Your task to perform on an android device: Search for flights from Seoul to Barcelona Image 0: 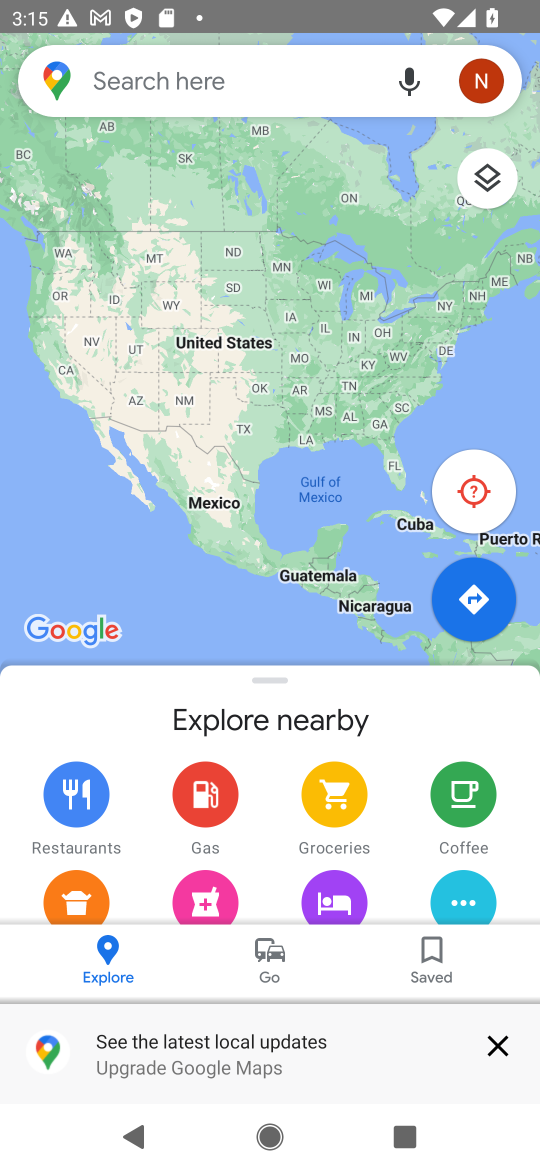
Step 0: press home button
Your task to perform on an android device: Search for flights from Seoul to Barcelona Image 1: 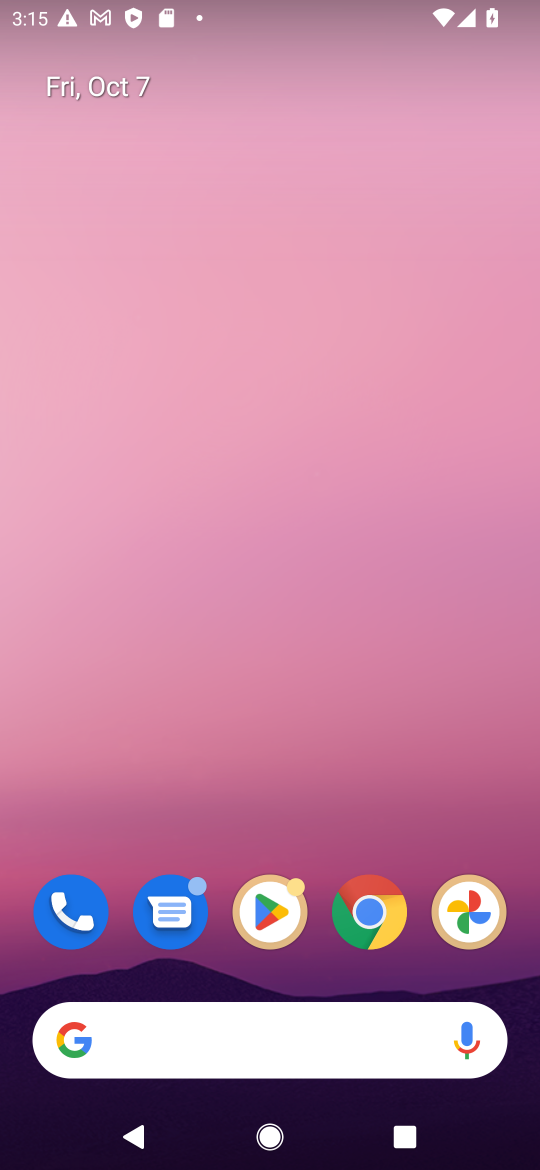
Step 1: drag from (265, 956) to (334, 144)
Your task to perform on an android device: Search for flights from Seoul to Barcelona Image 2: 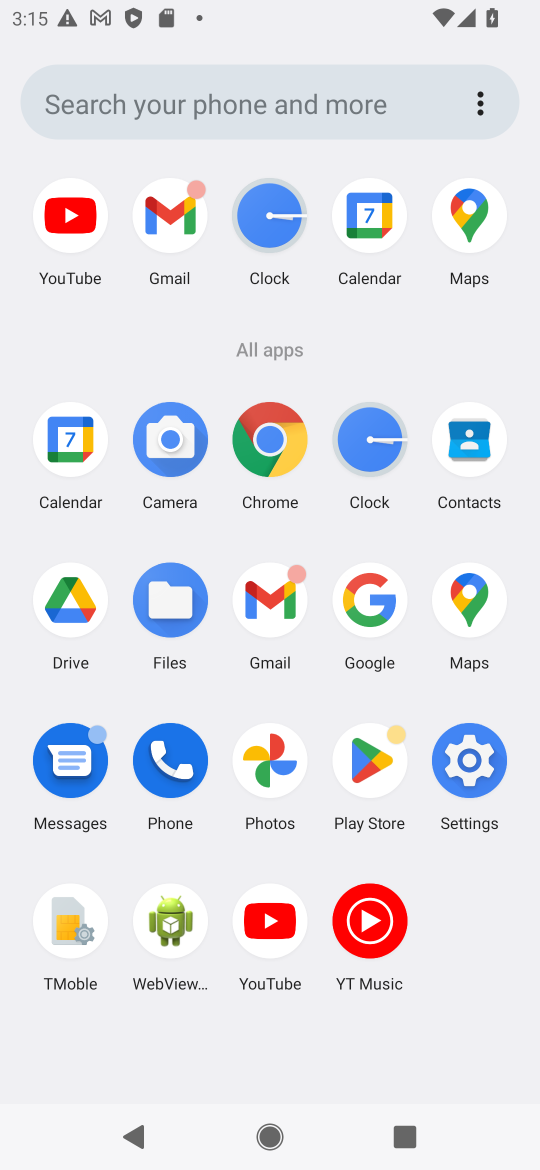
Step 2: click (372, 587)
Your task to perform on an android device: Search for flights from Seoul to Barcelona Image 3: 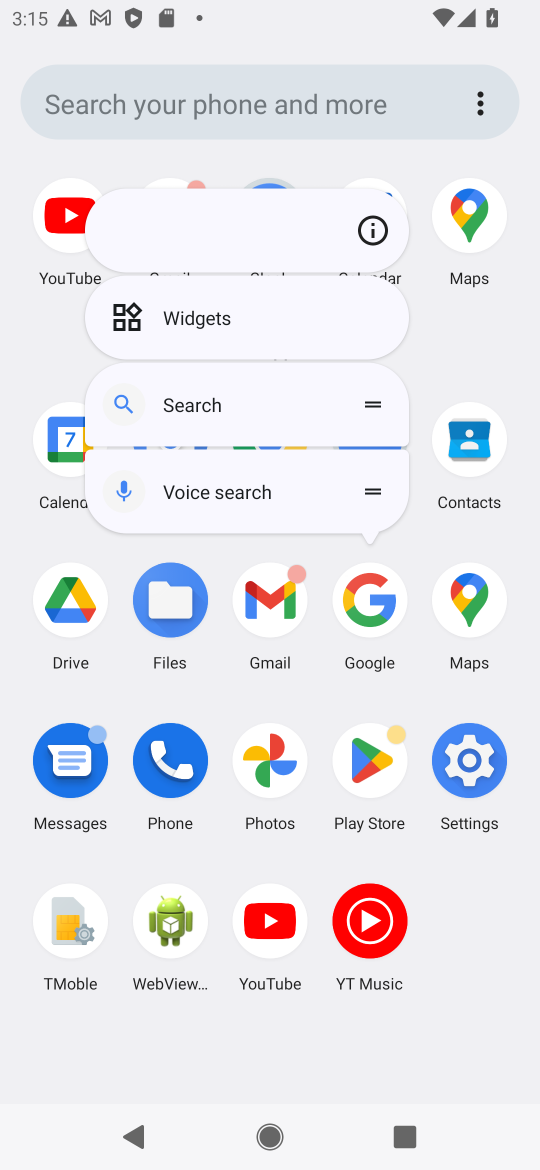
Step 3: click (372, 587)
Your task to perform on an android device: Search for flights from Seoul to Barcelona Image 4: 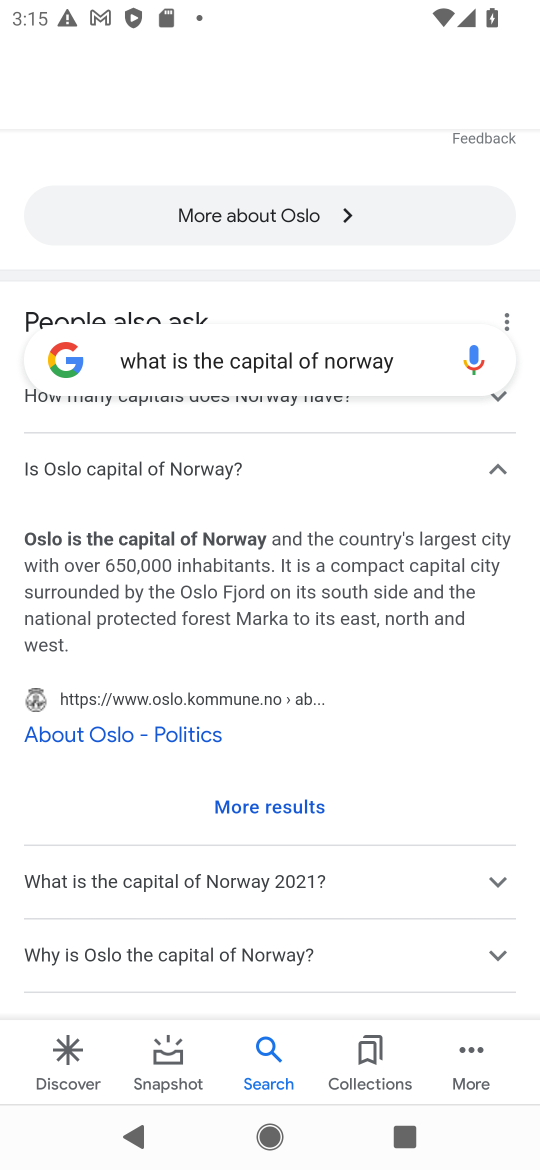
Step 4: click (434, 364)
Your task to perform on an android device: Search for flights from Seoul to Barcelona Image 5: 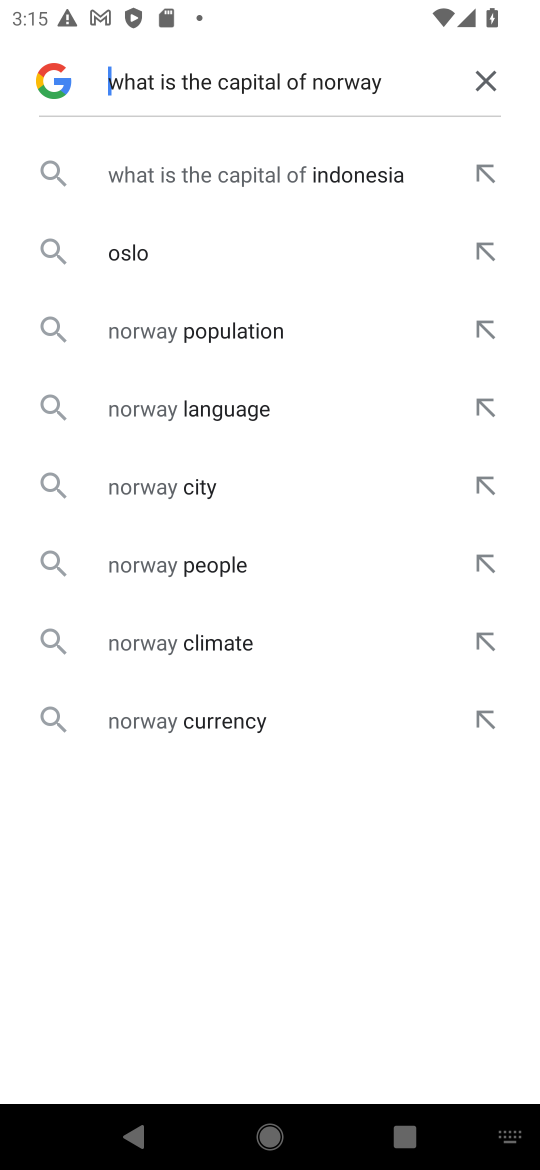
Step 5: click (485, 69)
Your task to perform on an android device: Search for flights from Seoul to Barcelona Image 6: 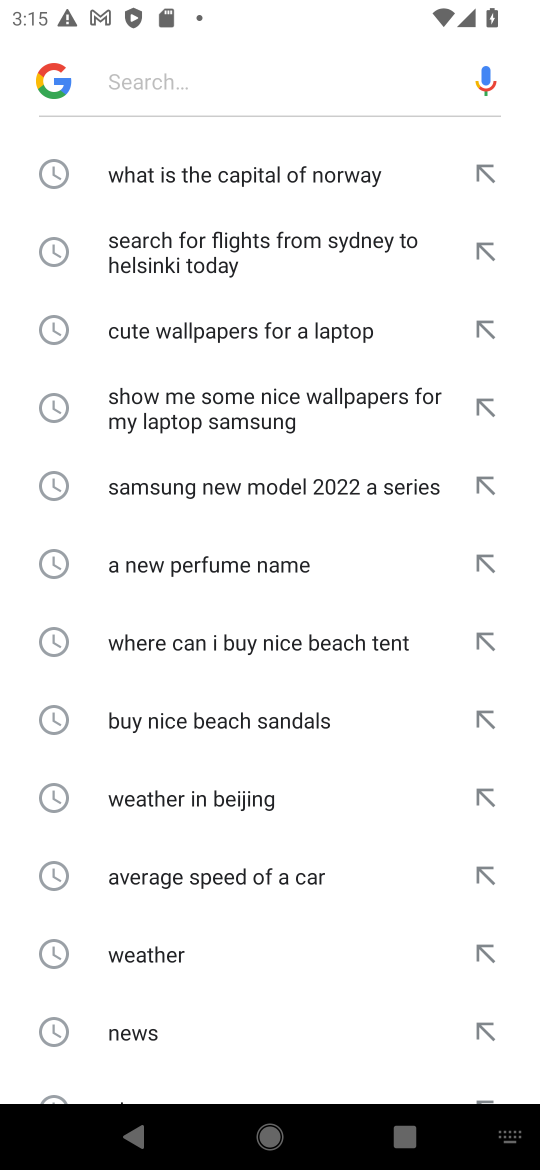
Step 6: click (273, 79)
Your task to perform on an android device: Search for flights from Seoul to Barcelona Image 7: 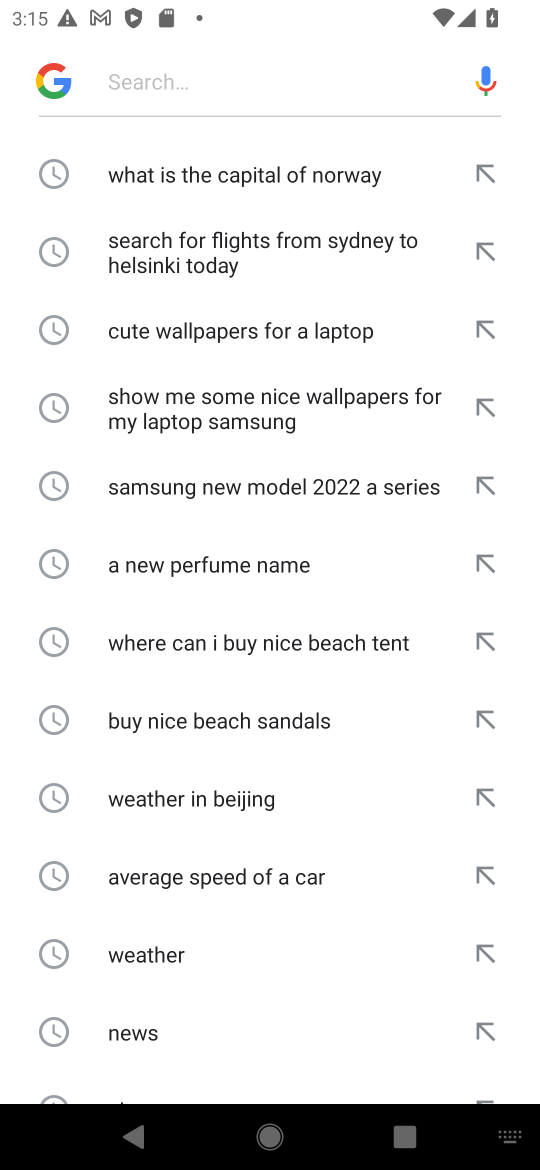
Step 7: type "Search for flights from Seoul to Barcelona "
Your task to perform on an android device: Search for flights from Seoul to Barcelona Image 8: 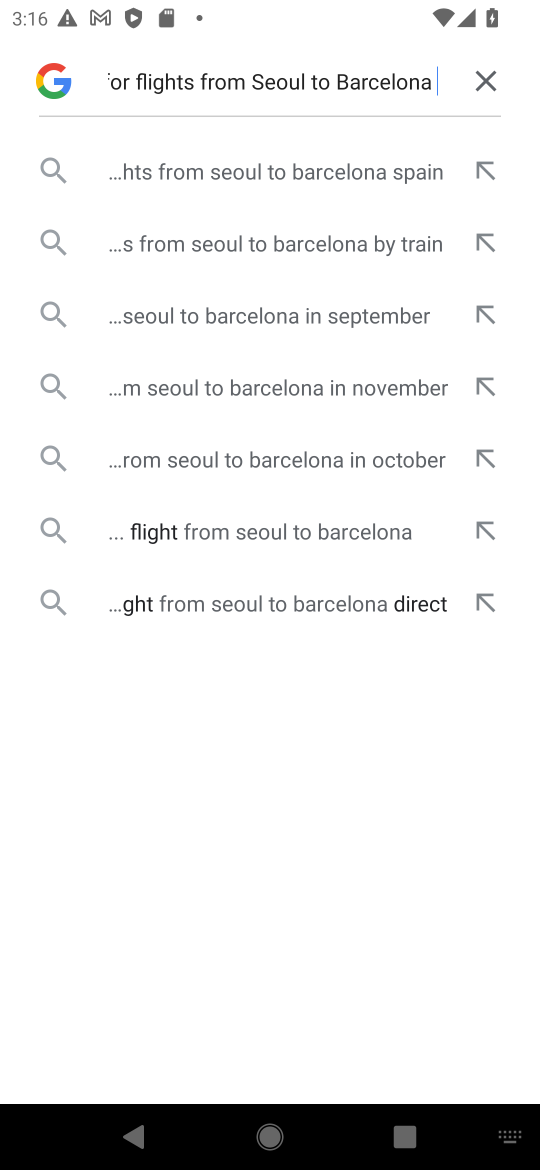
Step 8: click (234, 162)
Your task to perform on an android device: Search for flights from Seoul to Barcelona Image 9: 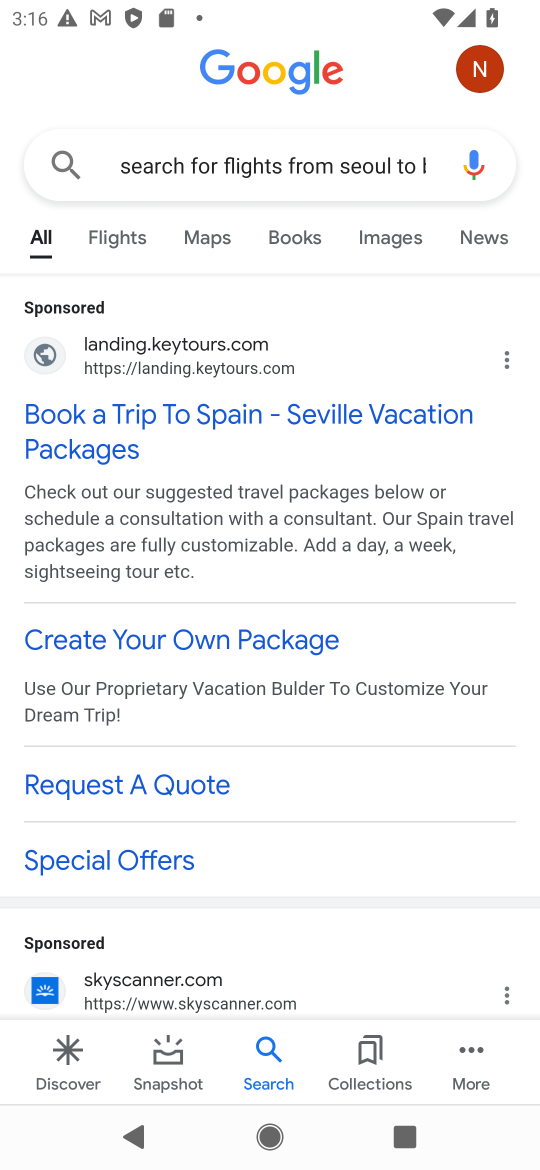
Step 9: click (73, 443)
Your task to perform on an android device: Search for flights from Seoul to Barcelona Image 10: 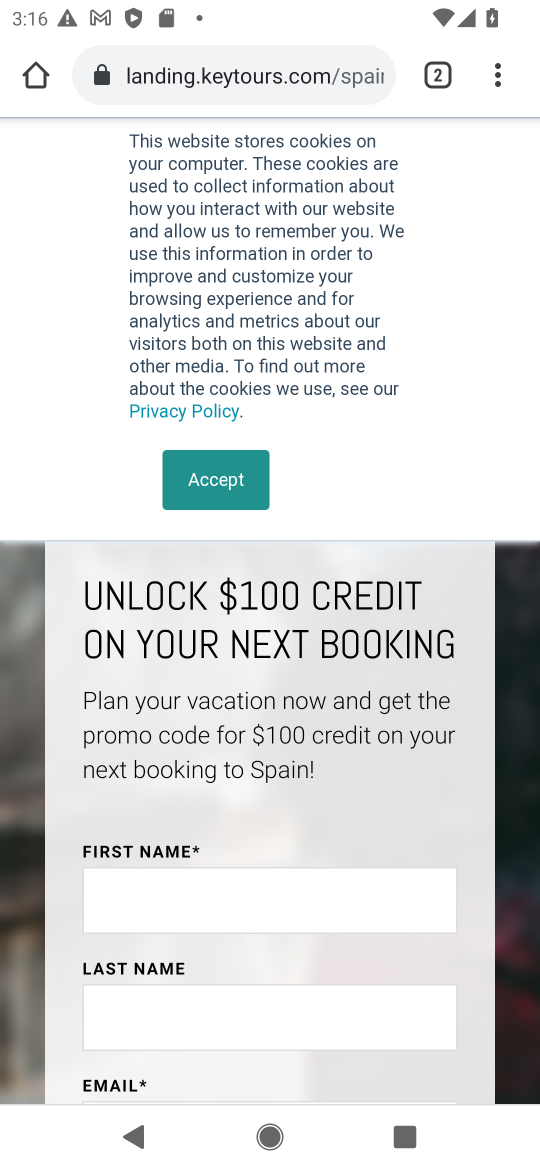
Step 10: drag from (169, 810) to (259, 473)
Your task to perform on an android device: Search for flights from Seoul to Barcelona Image 11: 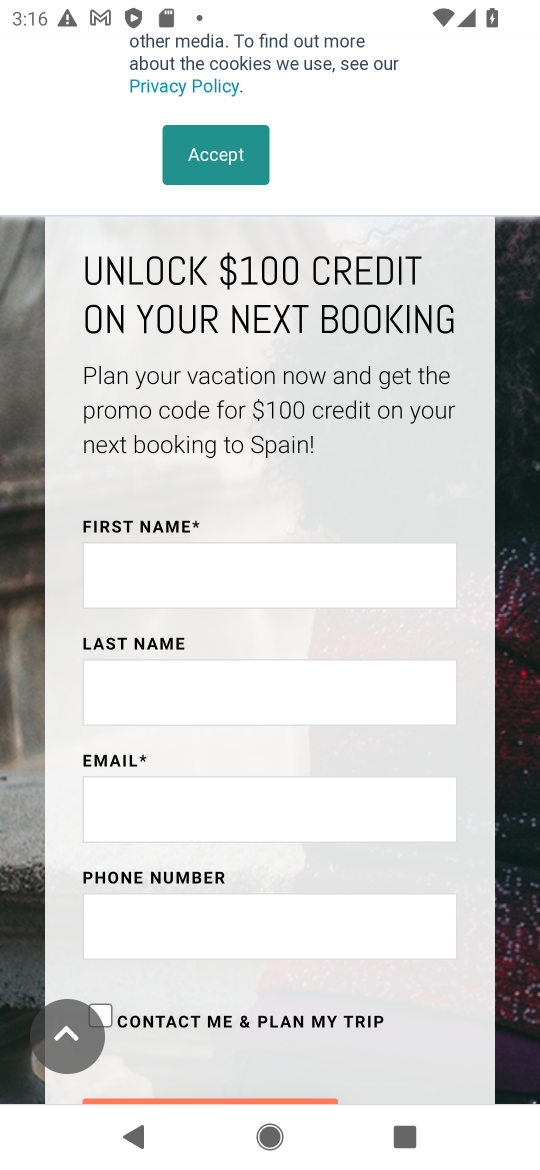
Step 11: drag from (215, 651) to (343, 185)
Your task to perform on an android device: Search for flights from Seoul to Barcelona Image 12: 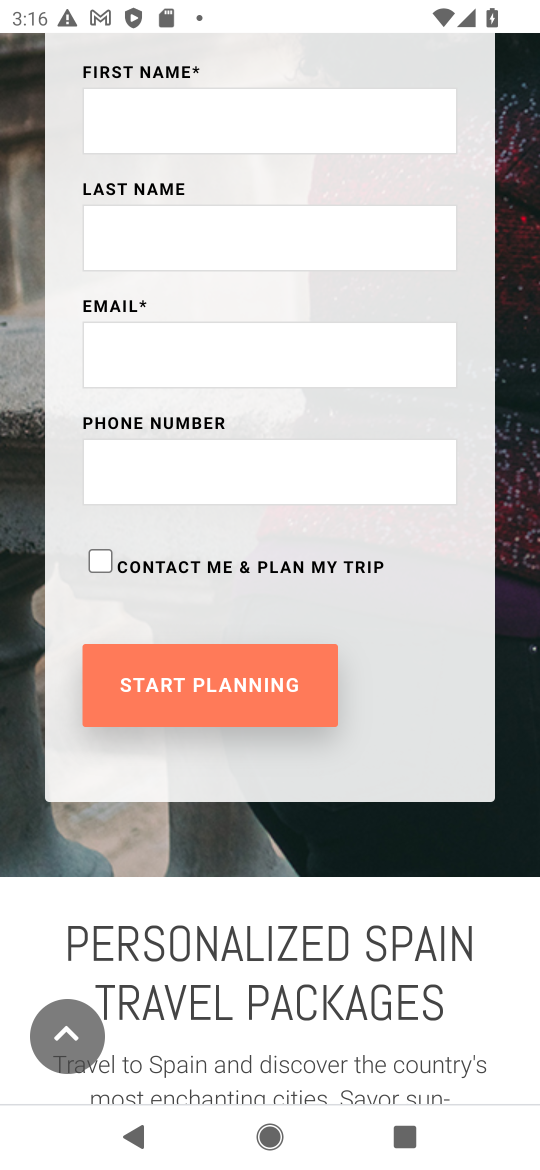
Step 12: press back button
Your task to perform on an android device: Search for flights from Seoul to Barcelona Image 13: 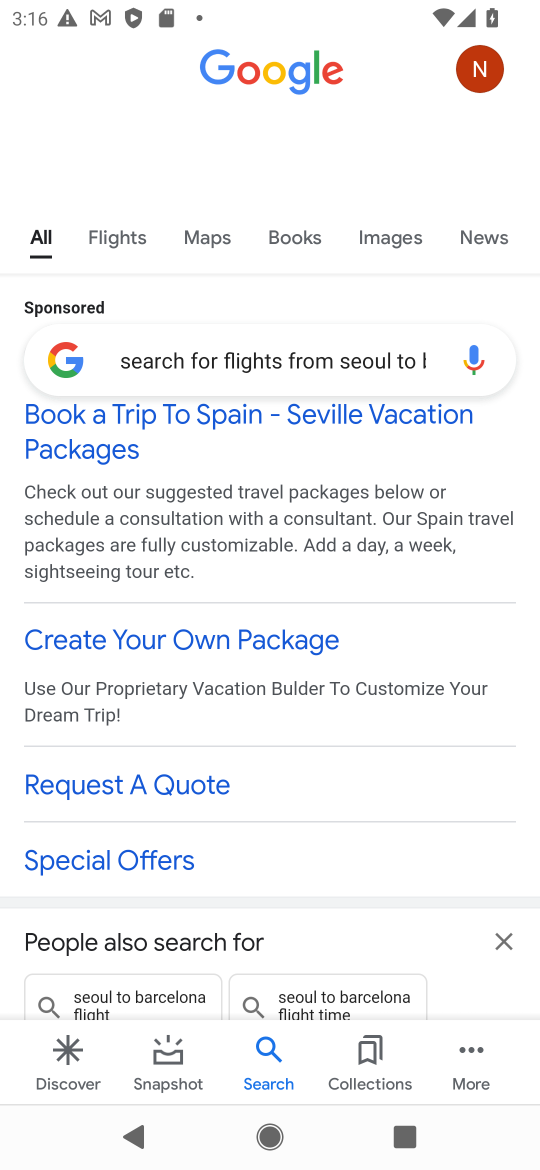
Step 13: drag from (205, 882) to (308, 389)
Your task to perform on an android device: Search for flights from Seoul to Barcelona Image 14: 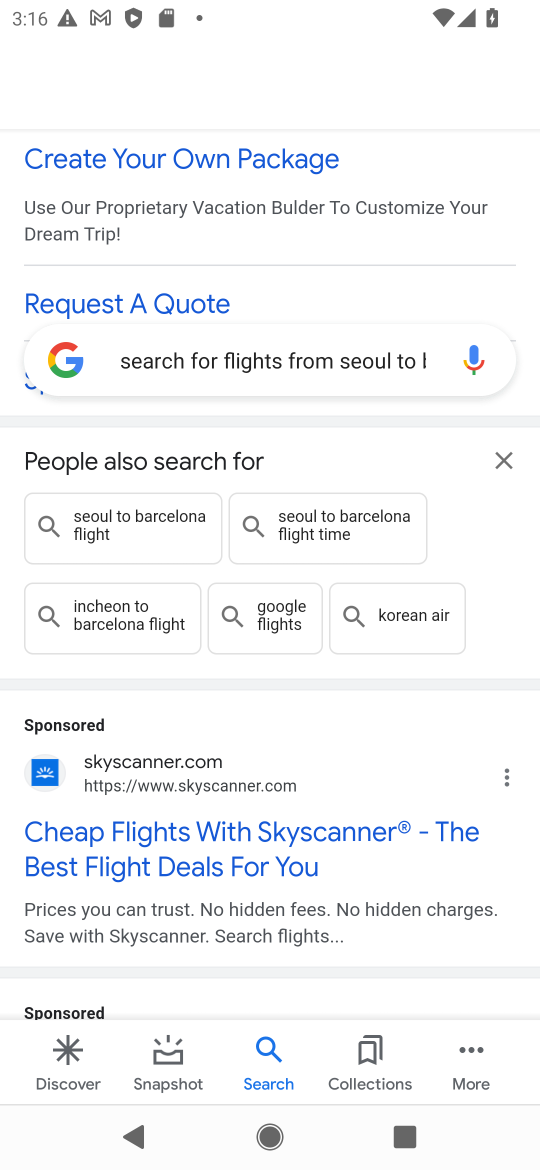
Step 14: click (178, 838)
Your task to perform on an android device: Search for flights from Seoul to Barcelona Image 15: 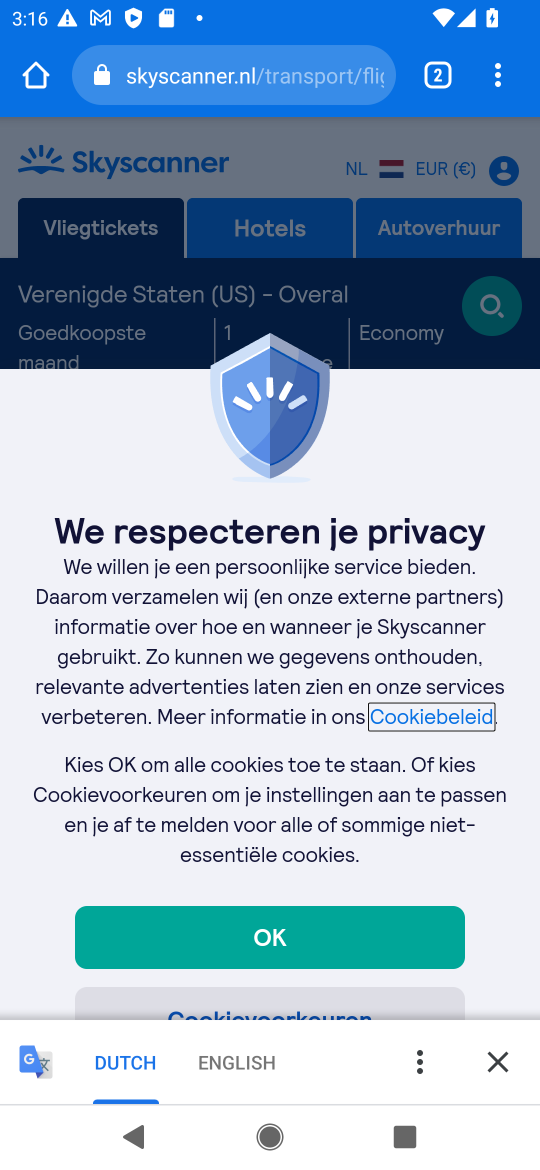
Step 15: click (293, 925)
Your task to perform on an android device: Search for flights from Seoul to Barcelona Image 16: 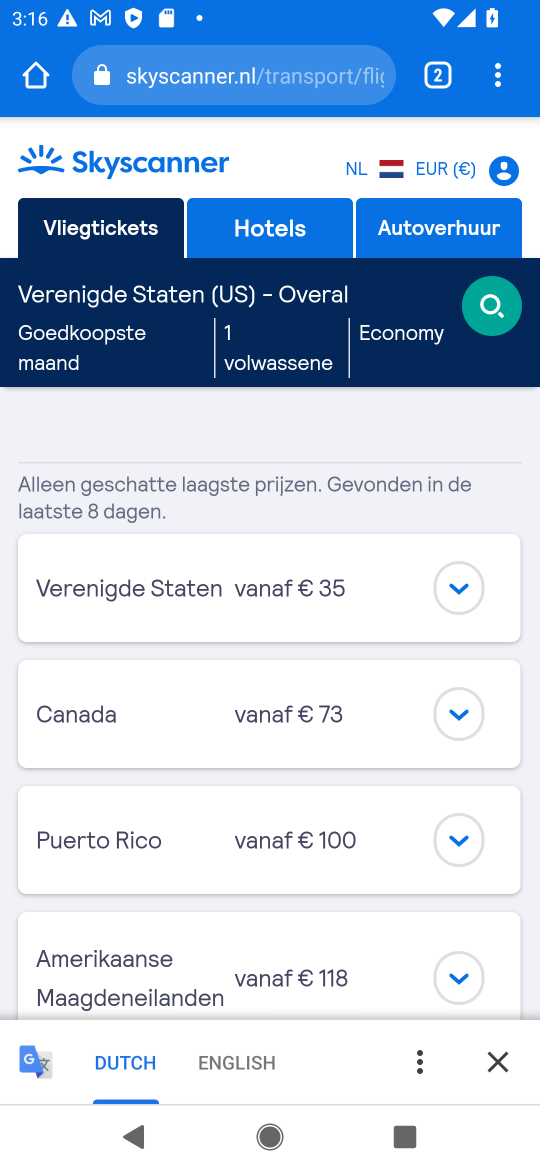
Step 16: drag from (216, 978) to (362, 475)
Your task to perform on an android device: Search for flights from Seoul to Barcelona Image 17: 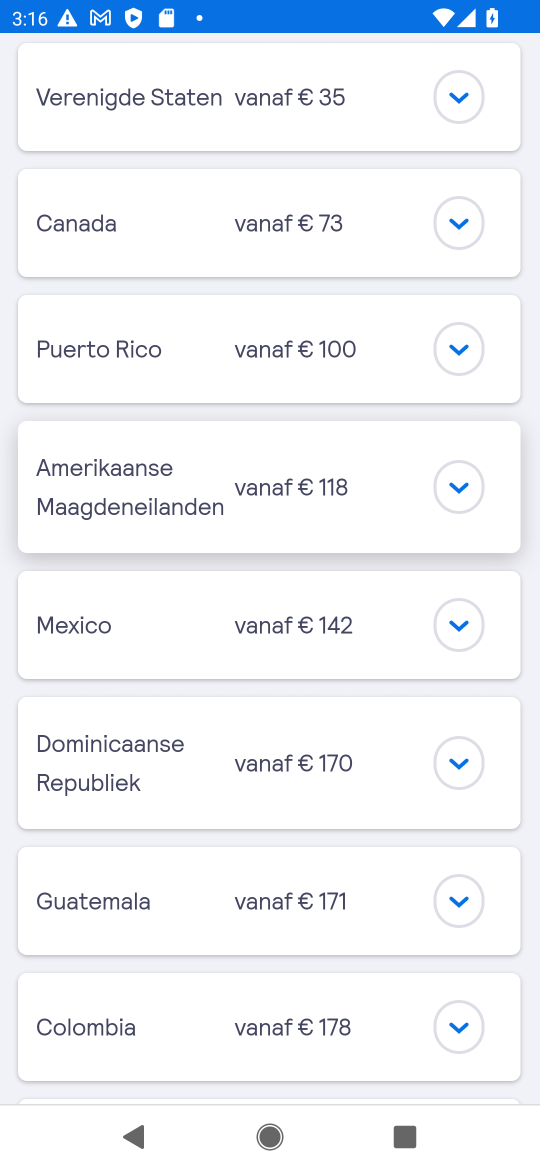
Step 17: drag from (267, 1008) to (325, 237)
Your task to perform on an android device: Search for flights from Seoul to Barcelona Image 18: 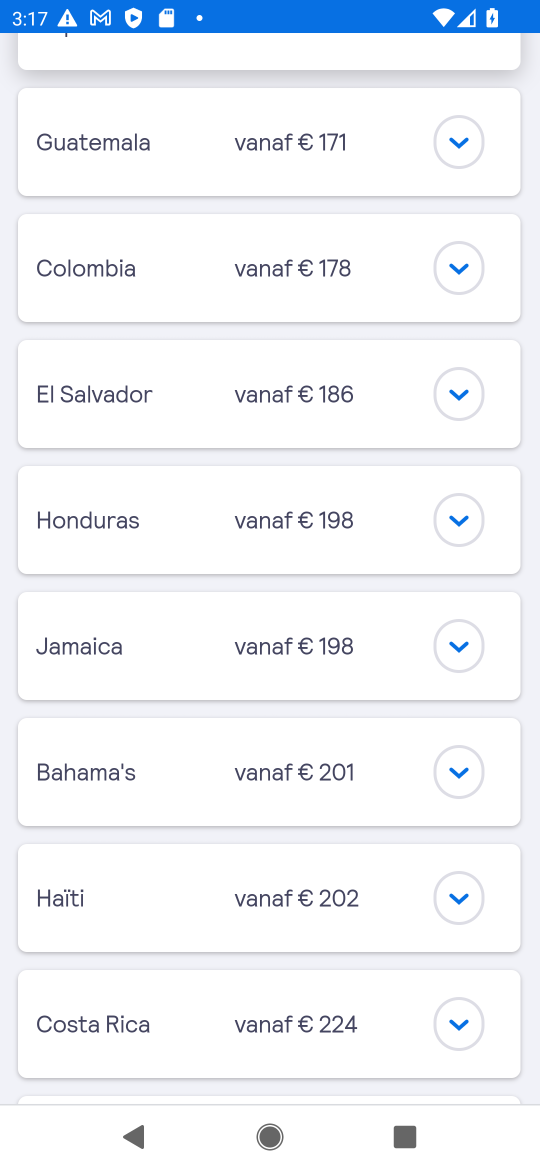
Step 18: drag from (194, 237) to (87, 1014)
Your task to perform on an android device: Search for flights from Seoul to Barcelona Image 19: 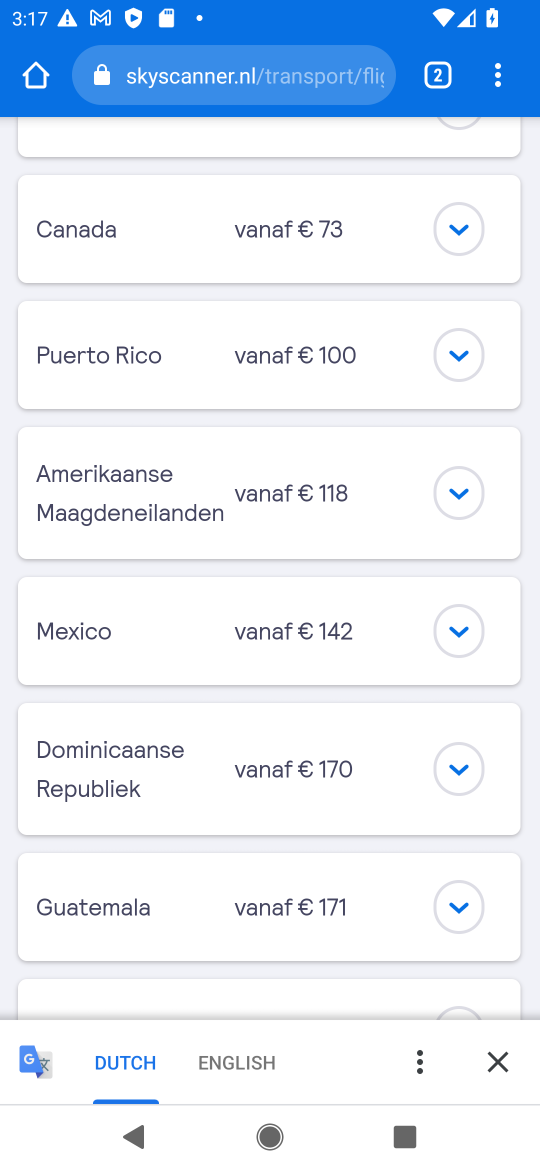
Step 19: press back button
Your task to perform on an android device: Search for flights from Seoul to Barcelona Image 20: 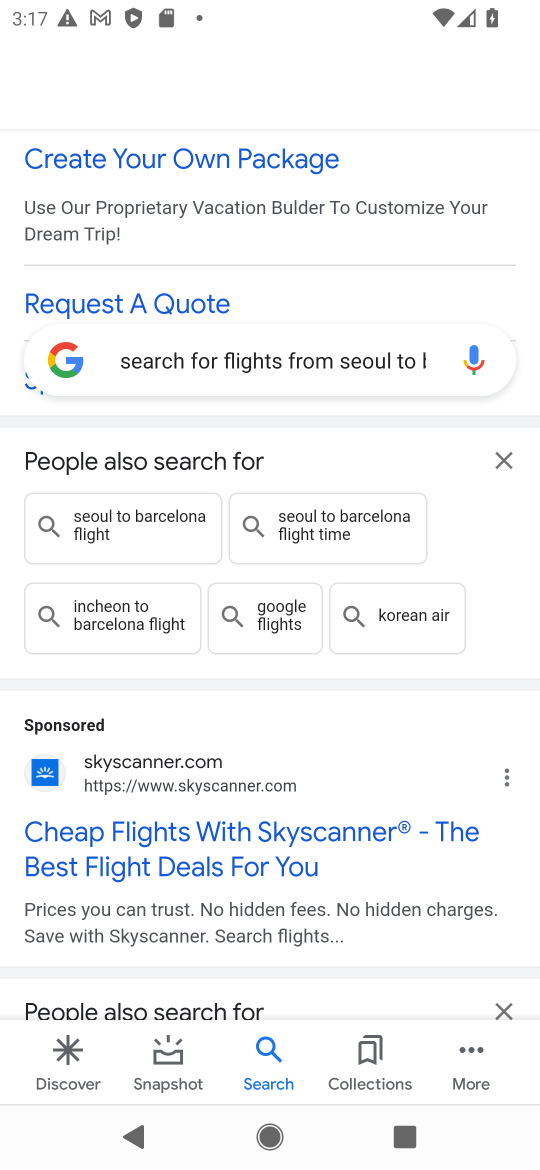
Step 20: click (173, 527)
Your task to perform on an android device: Search for flights from Seoul to Barcelona Image 21: 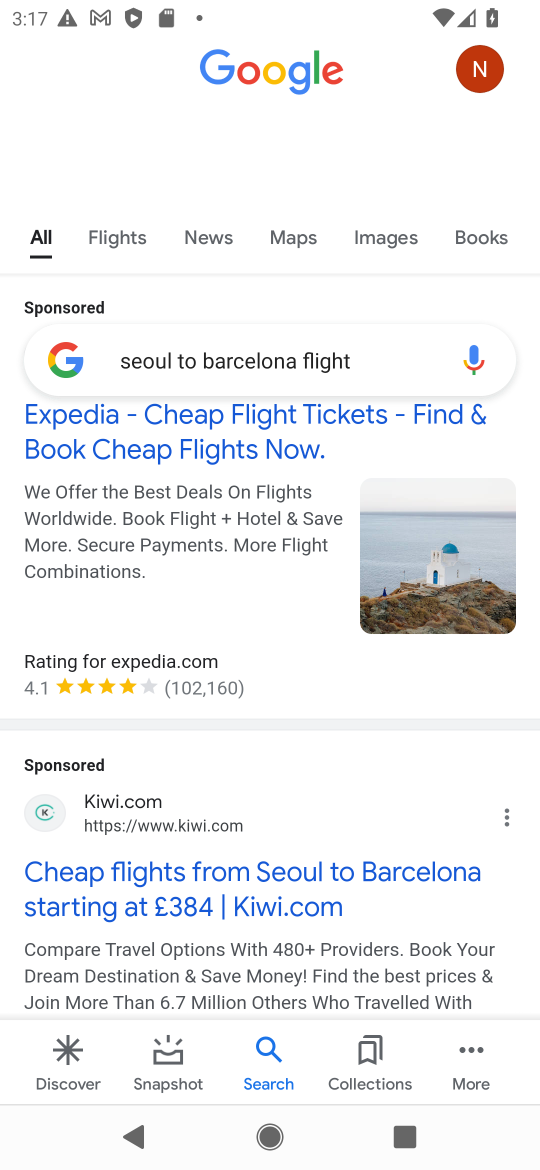
Step 21: click (224, 437)
Your task to perform on an android device: Search for flights from Seoul to Barcelona Image 22: 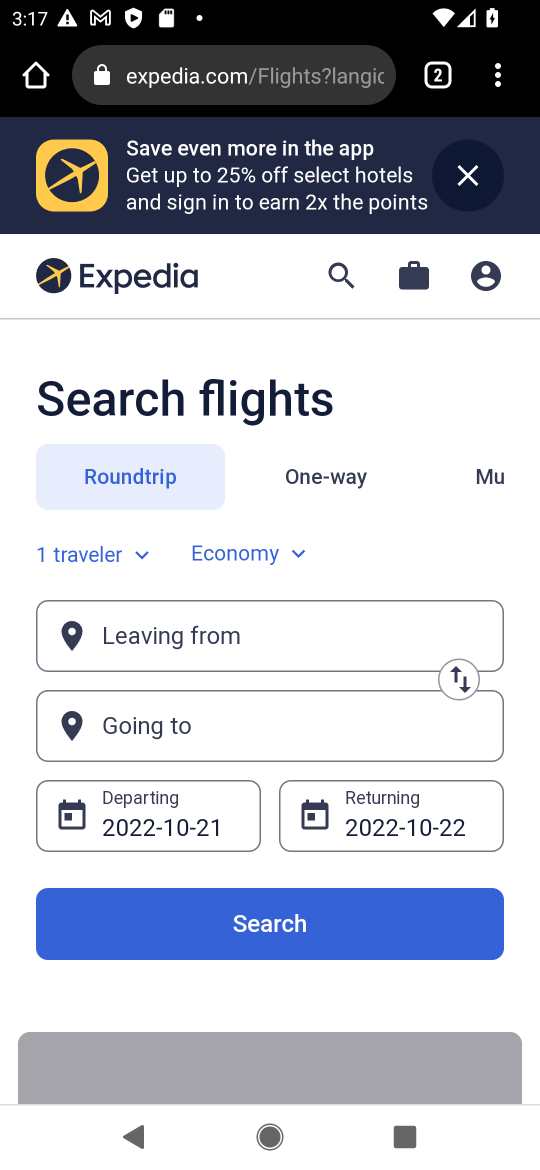
Step 22: task complete